Your task to perform on an android device: empty trash in the gmail app Image 0: 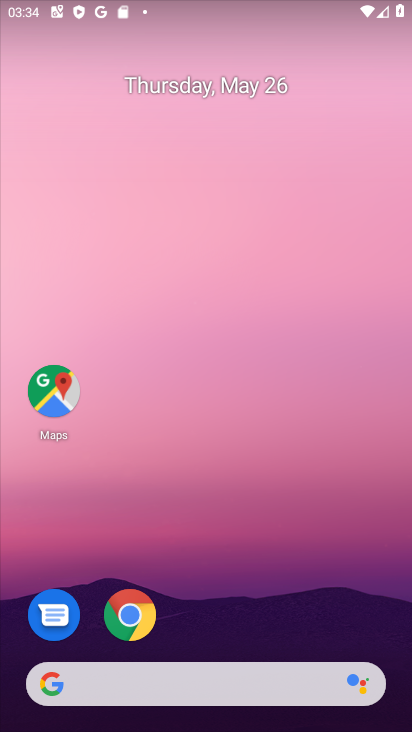
Step 0: drag from (225, 633) to (227, 15)
Your task to perform on an android device: empty trash in the gmail app Image 1: 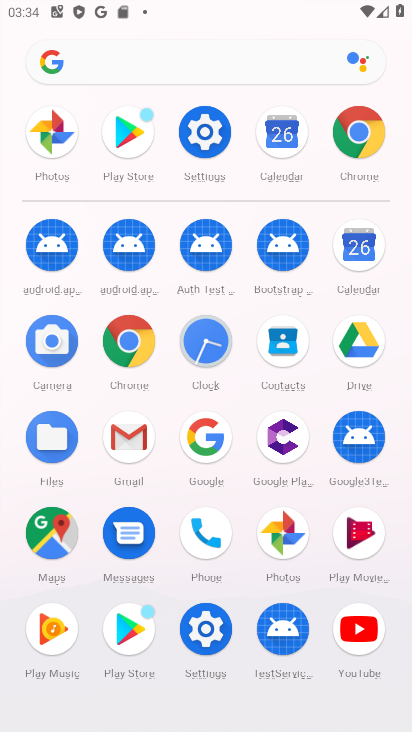
Step 1: click (134, 445)
Your task to perform on an android device: empty trash in the gmail app Image 2: 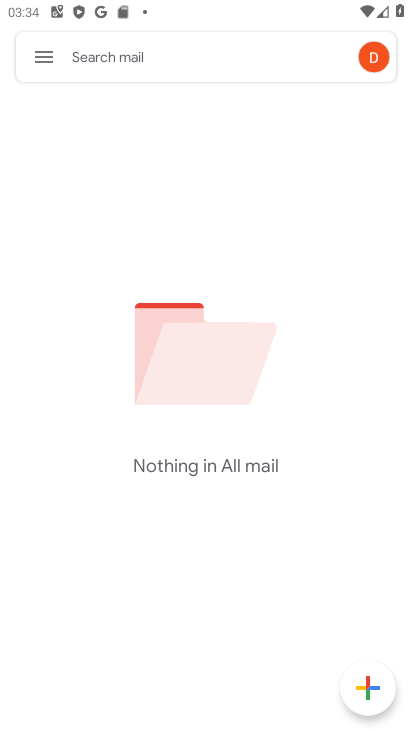
Step 2: click (44, 53)
Your task to perform on an android device: empty trash in the gmail app Image 3: 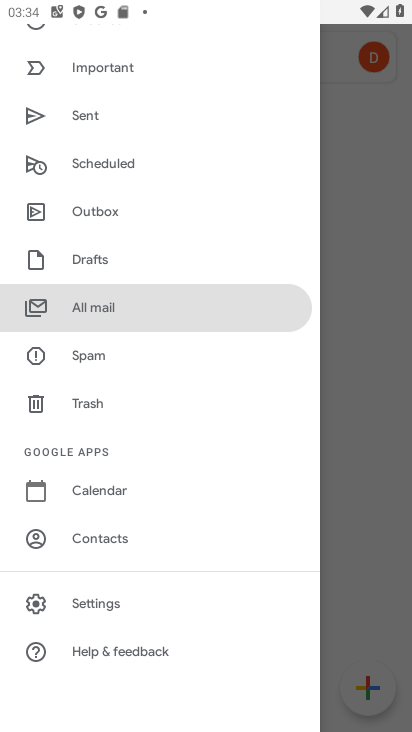
Step 3: click (95, 400)
Your task to perform on an android device: empty trash in the gmail app Image 4: 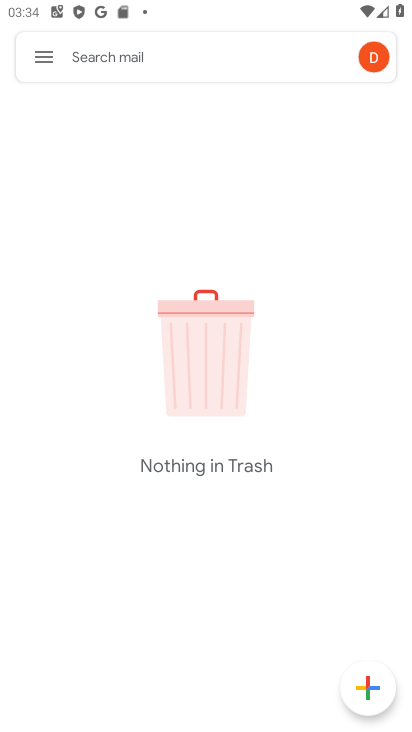
Step 4: task complete